Your task to perform on an android device: Go to battery settings Image 0: 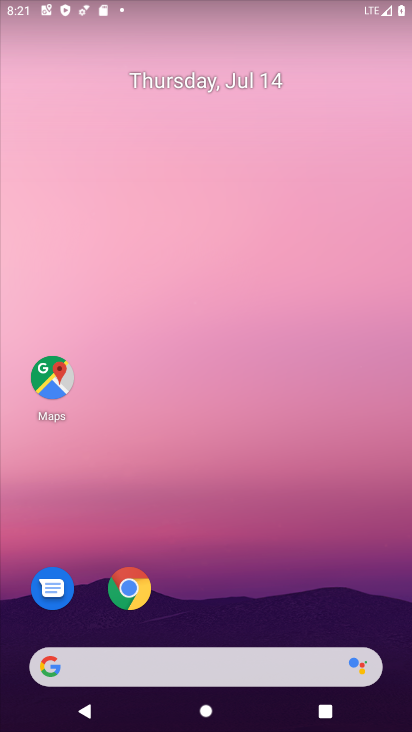
Step 0: drag from (383, 645) to (159, 72)
Your task to perform on an android device: Go to battery settings Image 1: 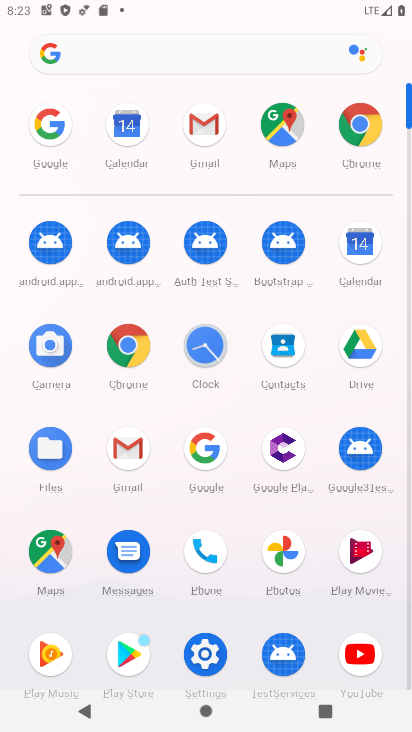
Step 1: click (213, 673)
Your task to perform on an android device: Go to battery settings Image 2: 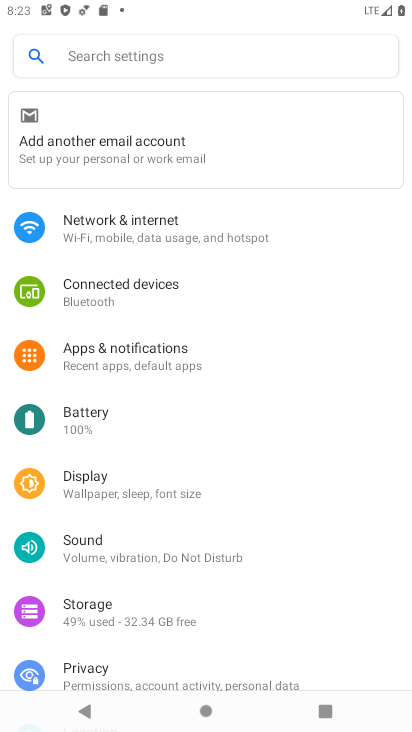
Step 2: click (117, 411)
Your task to perform on an android device: Go to battery settings Image 3: 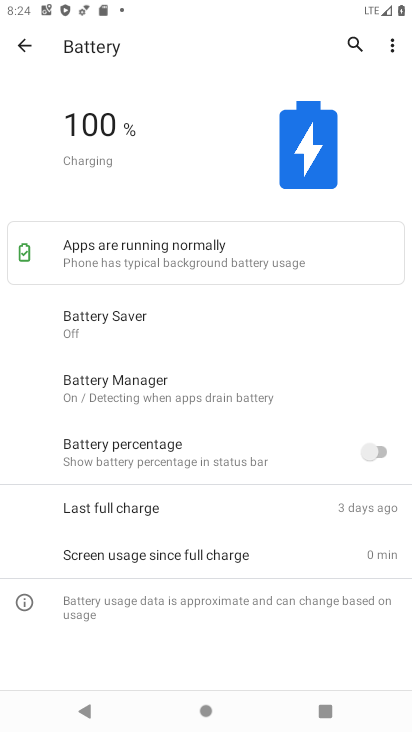
Step 3: task complete